Your task to perform on an android device: Open the stopwatch Image 0: 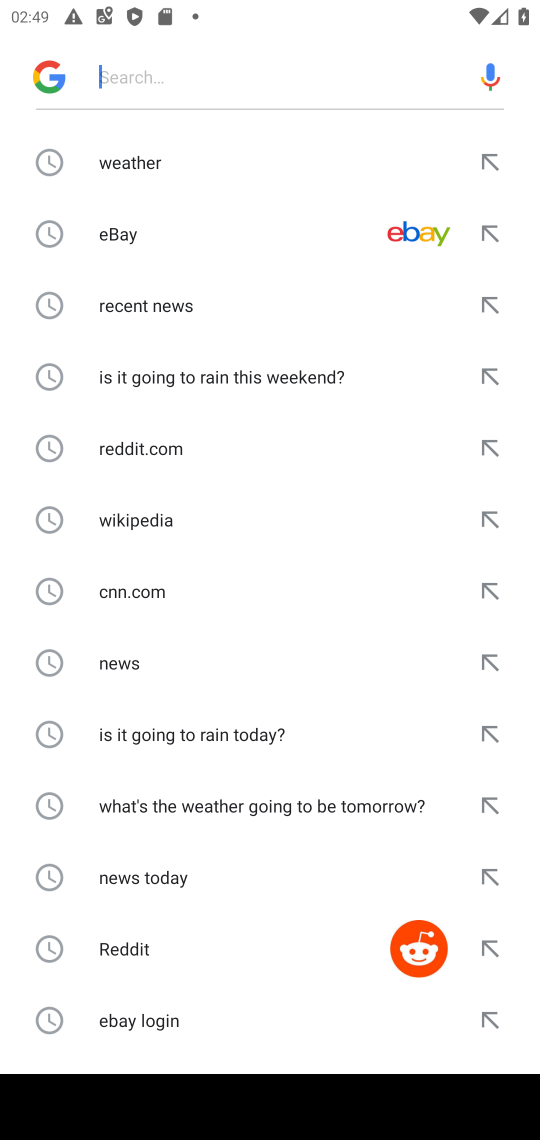
Step 0: press home button
Your task to perform on an android device: Open the stopwatch Image 1: 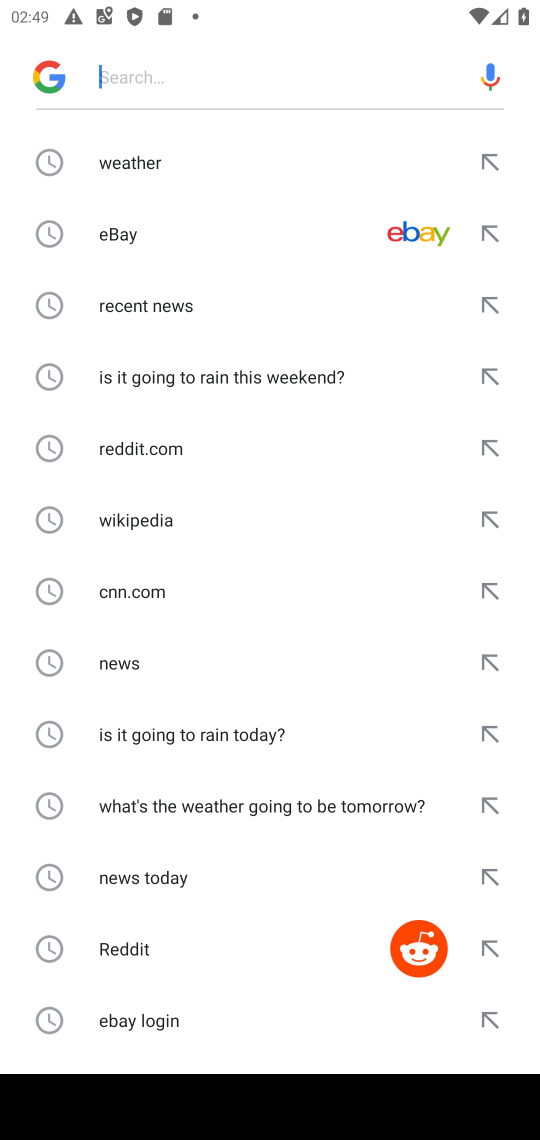
Step 1: press home button
Your task to perform on an android device: Open the stopwatch Image 2: 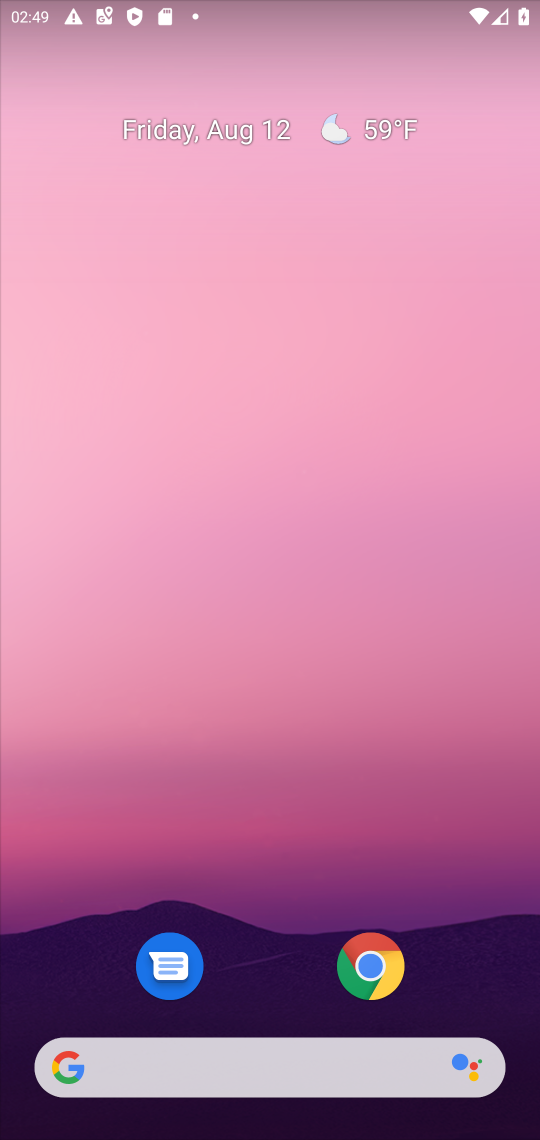
Step 2: drag from (298, 623) to (411, 64)
Your task to perform on an android device: Open the stopwatch Image 3: 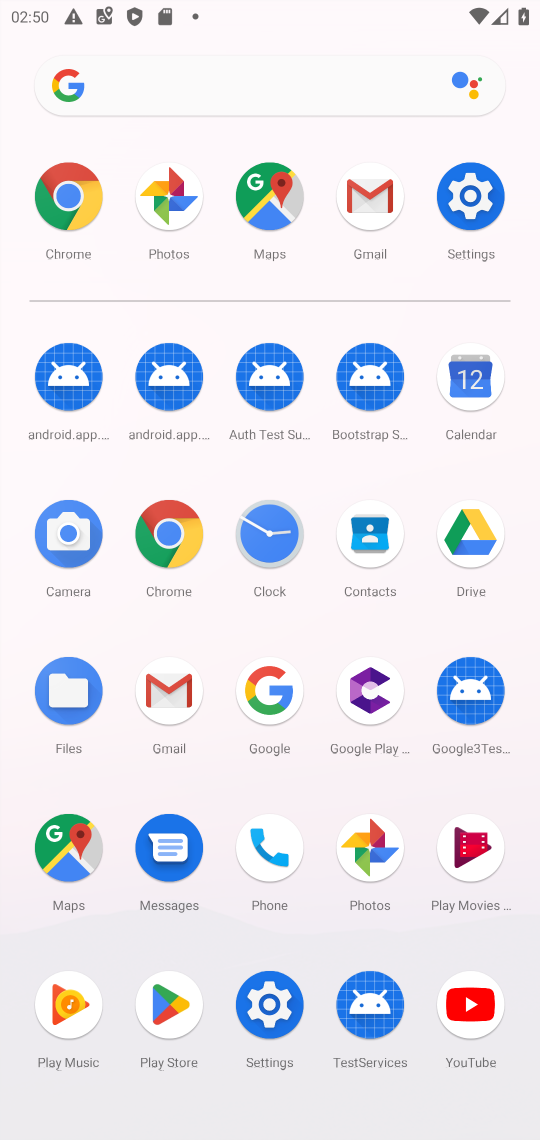
Step 3: click (264, 548)
Your task to perform on an android device: Open the stopwatch Image 4: 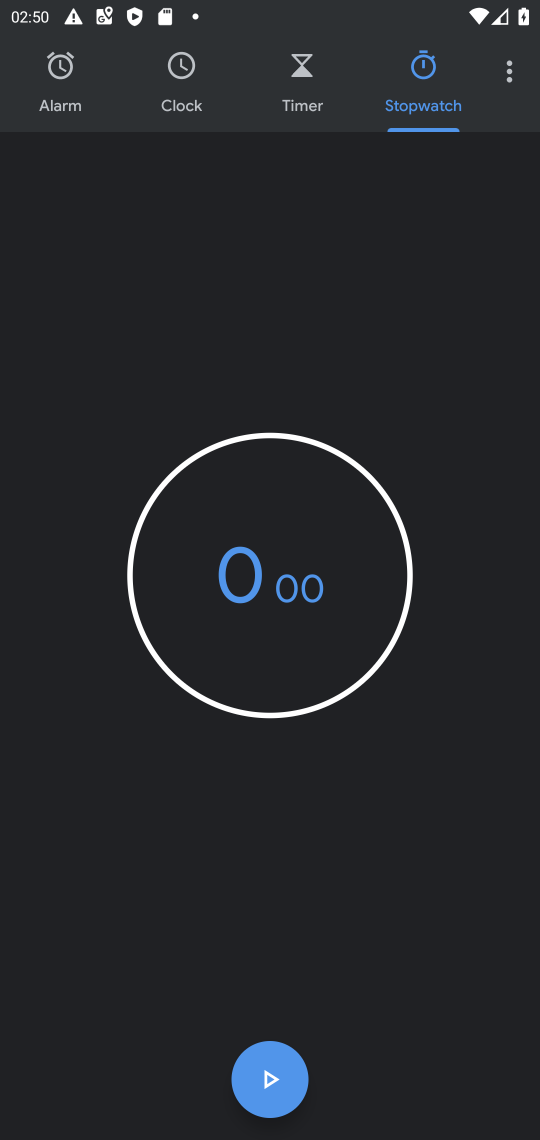
Step 4: task complete